Your task to perform on an android device: open a new tab in the chrome app Image 0: 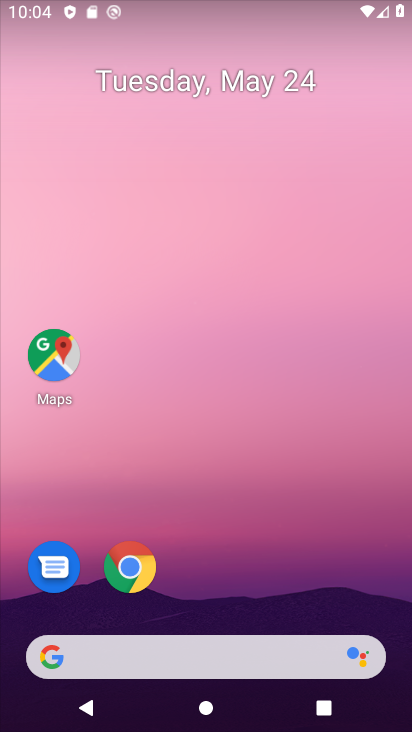
Step 0: click (136, 560)
Your task to perform on an android device: open a new tab in the chrome app Image 1: 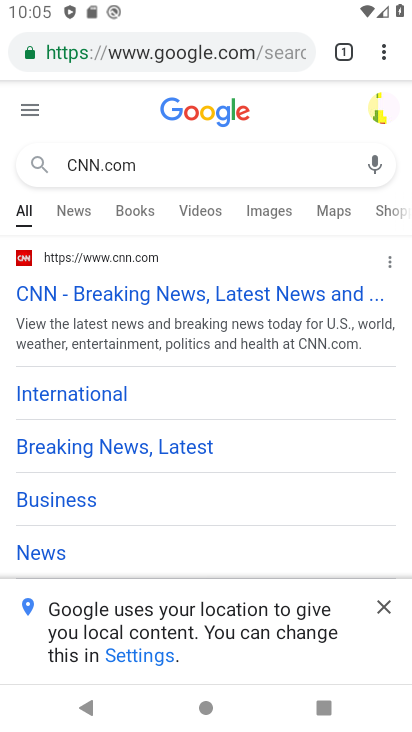
Step 1: click (382, 51)
Your task to perform on an android device: open a new tab in the chrome app Image 2: 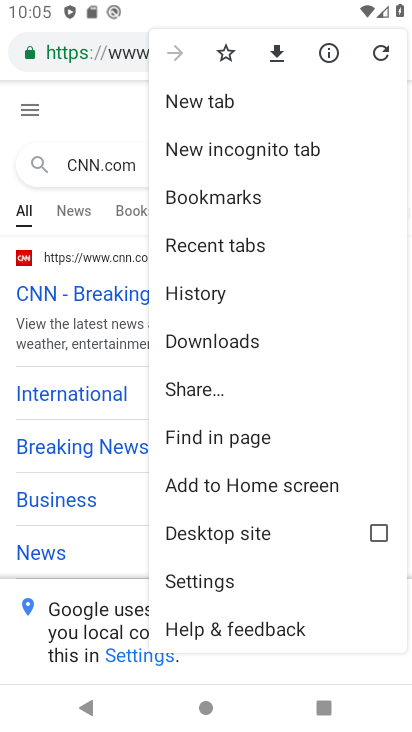
Step 2: click (205, 97)
Your task to perform on an android device: open a new tab in the chrome app Image 3: 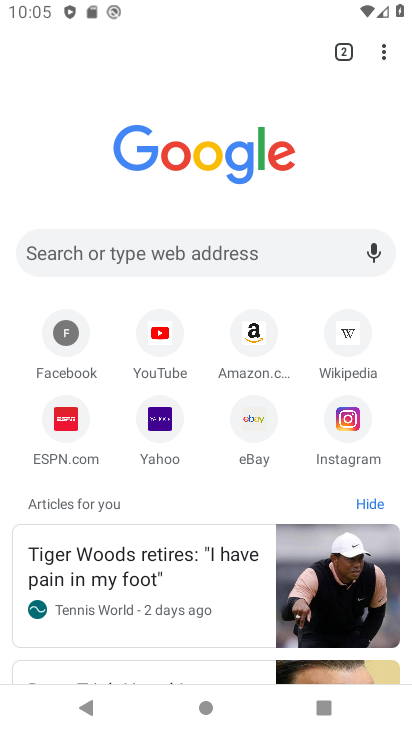
Step 3: task complete